Your task to perform on an android device: install app "Yahoo Mail" Image 0: 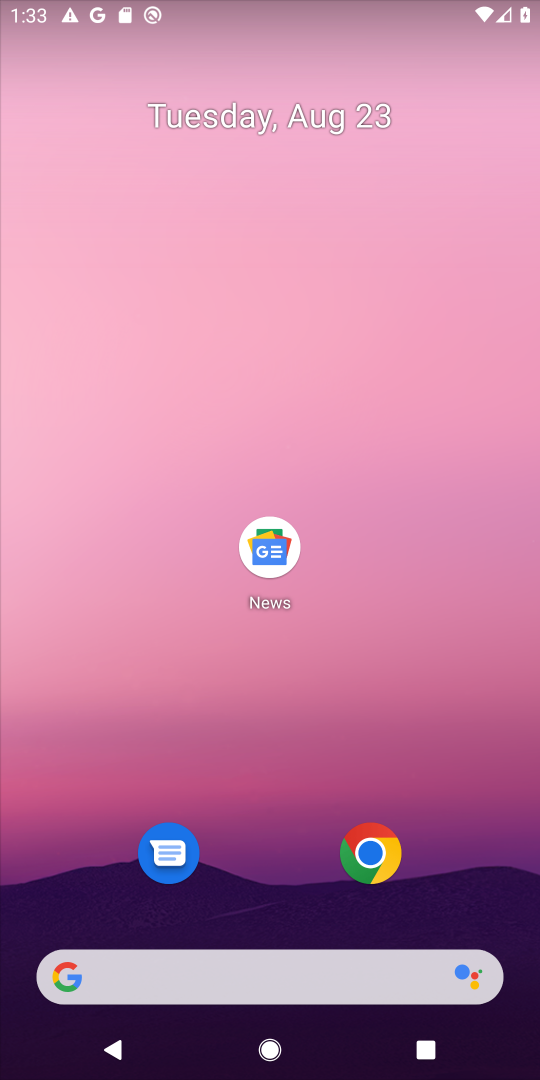
Step 0: press home button
Your task to perform on an android device: install app "Yahoo Mail" Image 1: 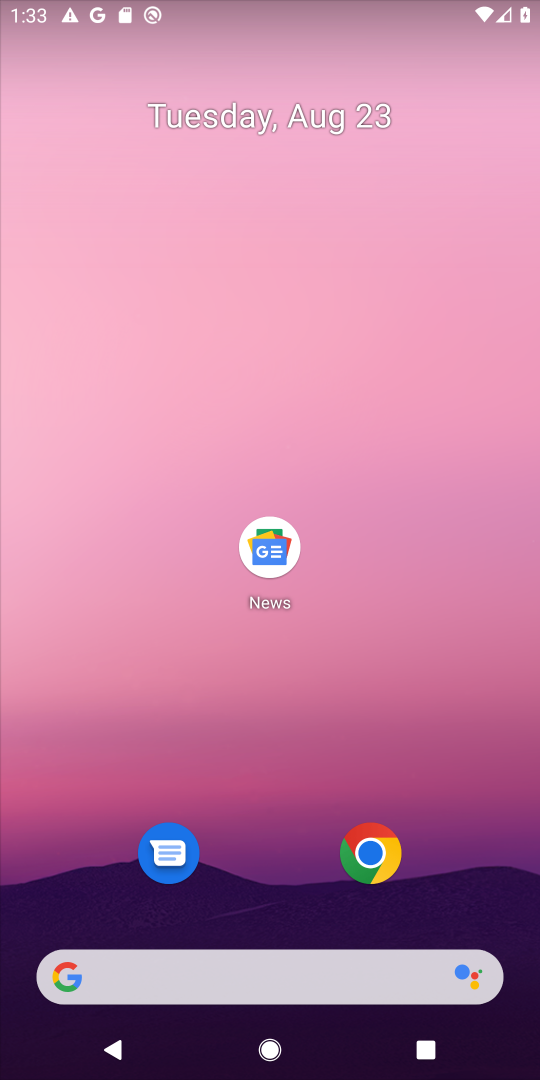
Step 1: drag from (510, 933) to (491, 180)
Your task to perform on an android device: install app "Yahoo Mail" Image 2: 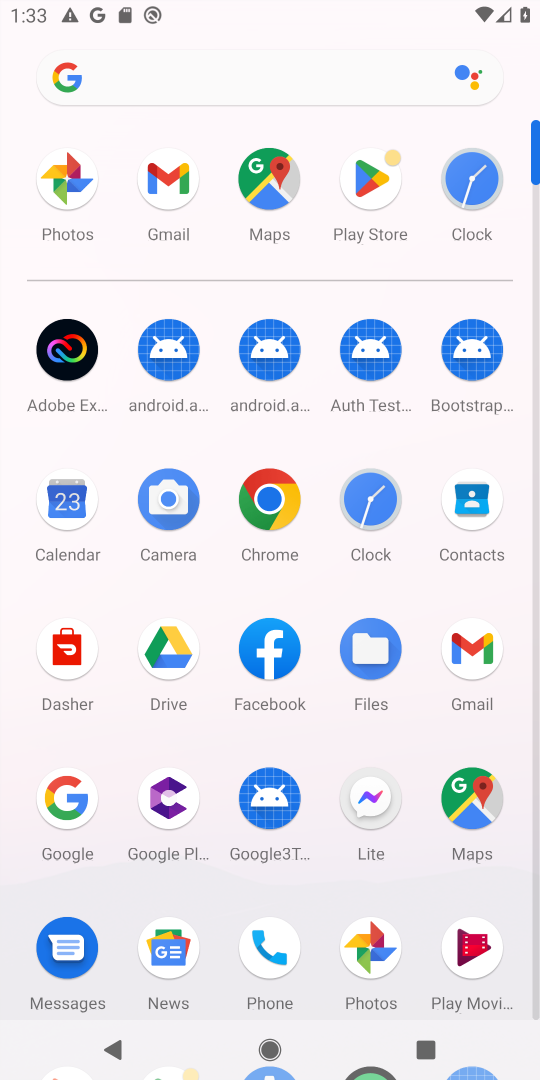
Step 2: click (537, 983)
Your task to perform on an android device: install app "Yahoo Mail" Image 3: 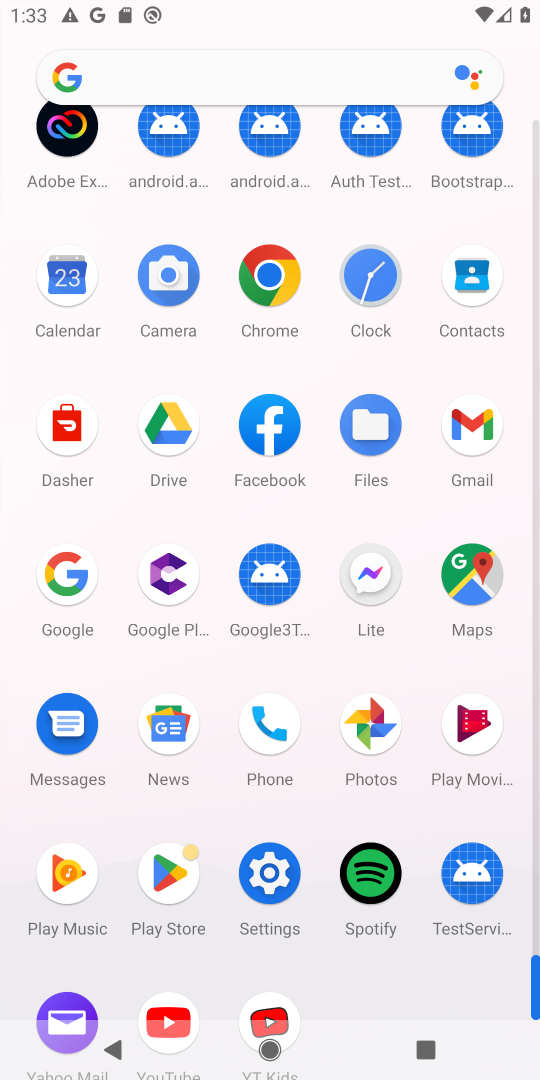
Step 3: click (174, 871)
Your task to perform on an android device: install app "Yahoo Mail" Image 4: 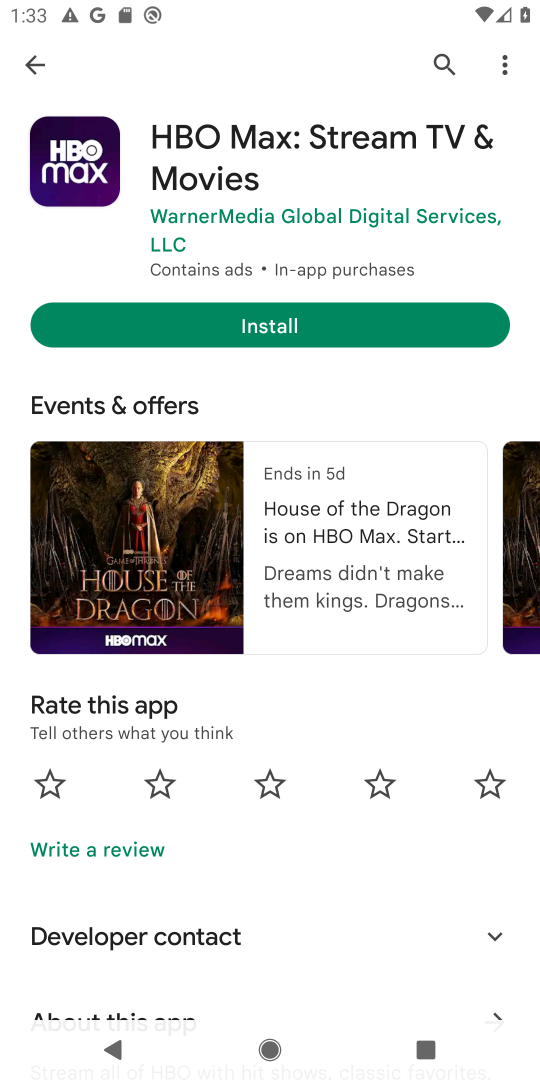
Step 4: click (443, 66)
Your task to perform on an android device: install app "Yahoo Mail" Image 5: 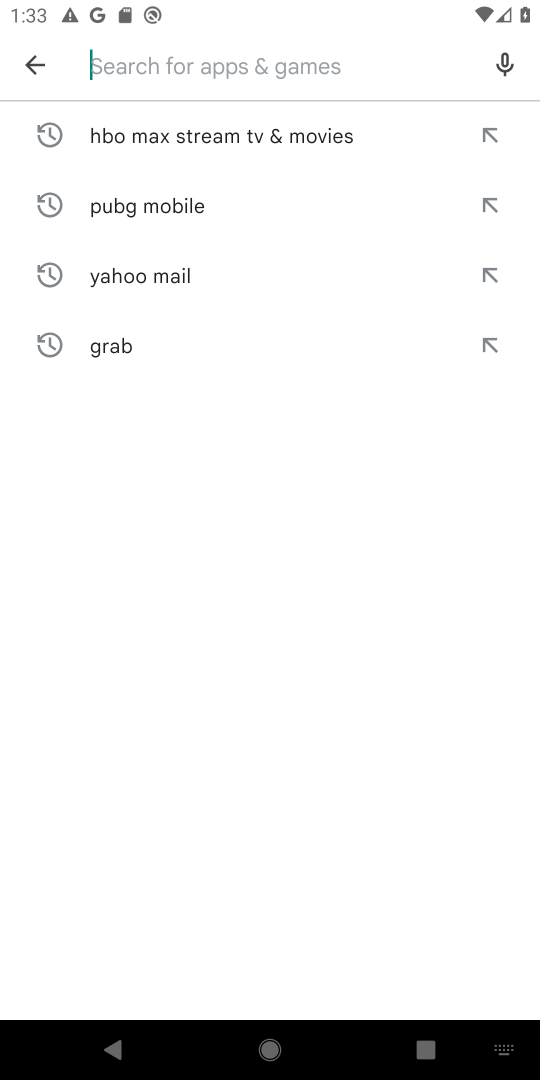
Step 5: type "Yahoo Mail"
Your task to perform on an android device: install app "Yahoo Mail" Image 6: 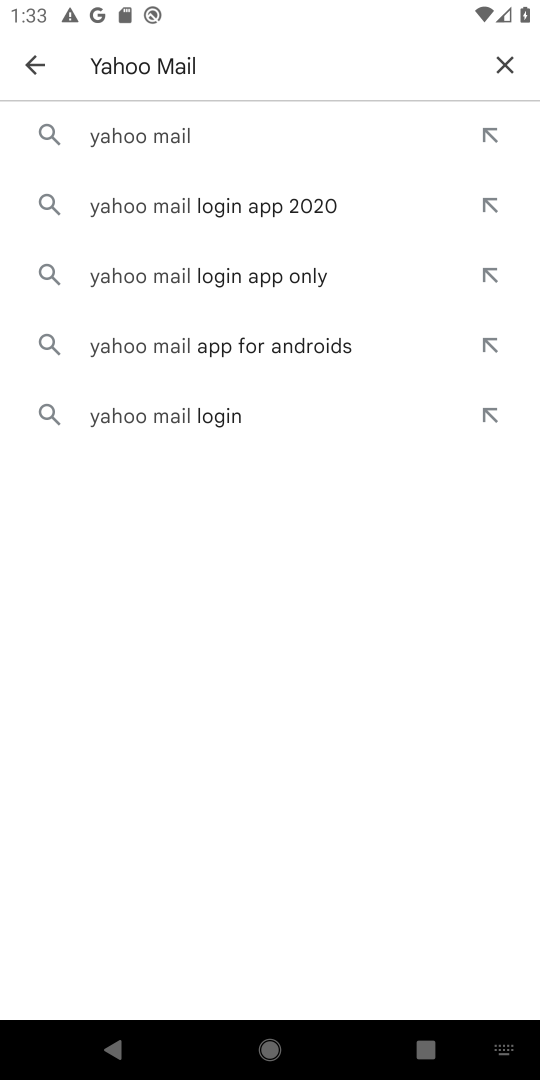
Step 6: click (134, 140)
Your task to perform on an android device: install app "Yahoo Mail" Image 7: 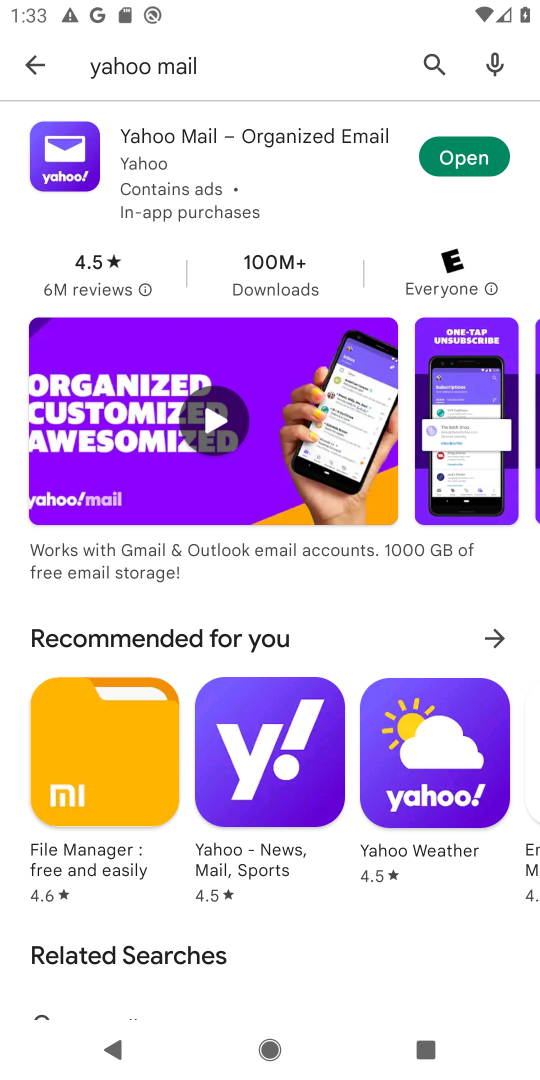
Step 7: task complete